Your task to perform on an android device: Open Youtube and go to the subscriptions tab Image 0: 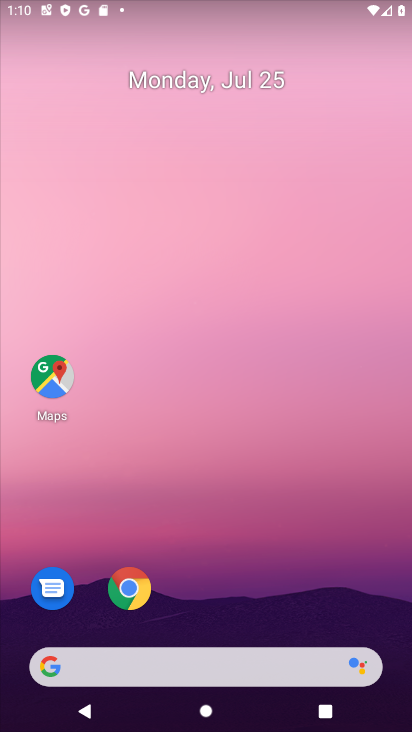
Step 0: drag from (172, 530) to (138, 47)
Your task to perform on an android device: Open Youtube and go to the subscriptions tab Image 1: 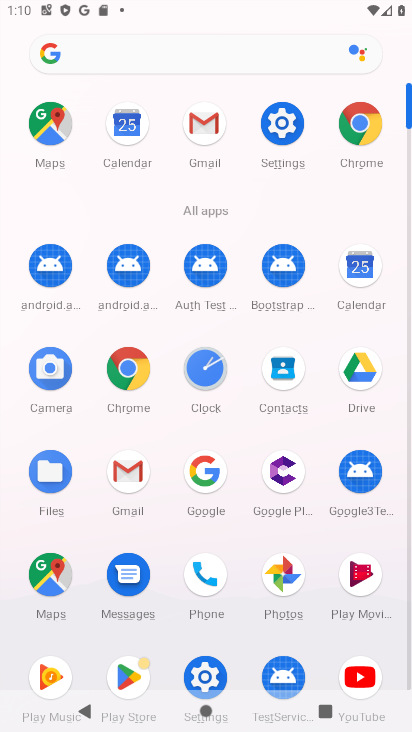
Step 1: click (356, 674)
Your task to perform on an android device: Open Youtube and go to the subscriptions tab Image 2: 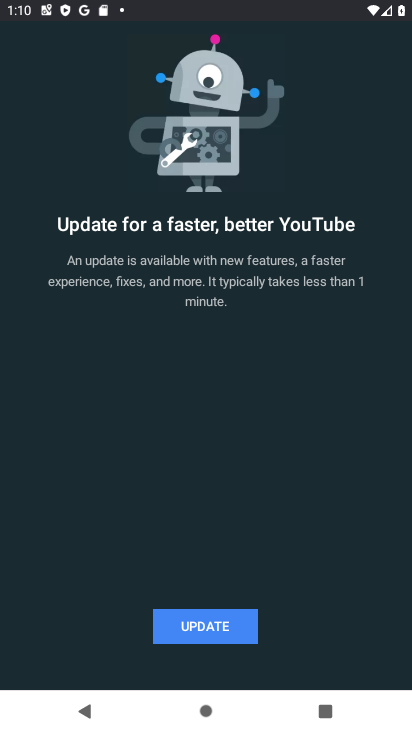
Step 2: click (183, 630)
Your task to perform on an android device: Open Youtube and go to the subscriptions tab Image 3: 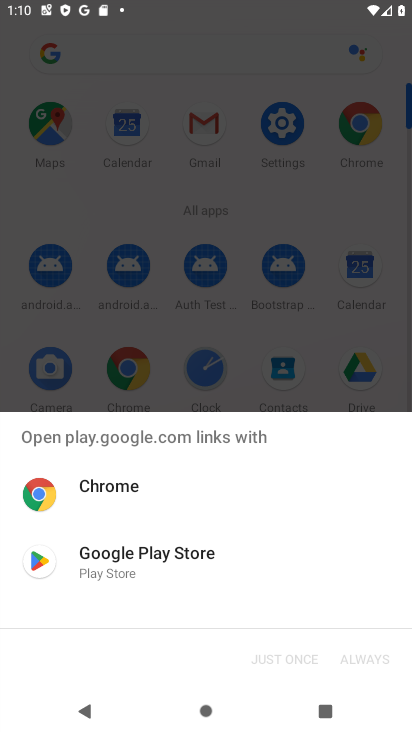
Step 3: click (117, 564)
Your task to perform on an android device: Open Youtube and go to the subscriptions tab Image 4: 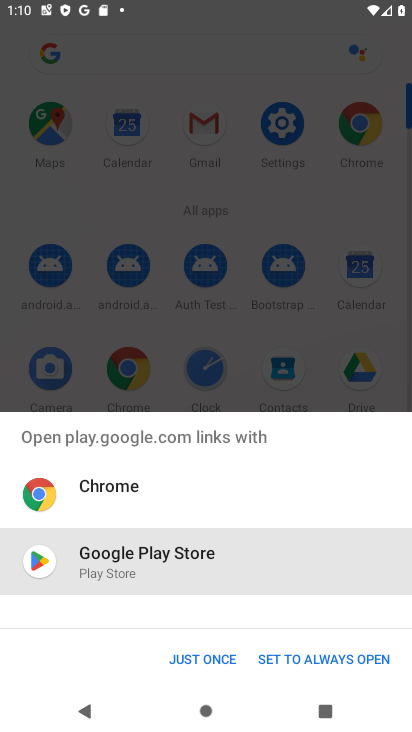
Step 4: click (299, 664)
Your task to perform on an android device: Open Youtube and go to the subscriptions tab Image 5: 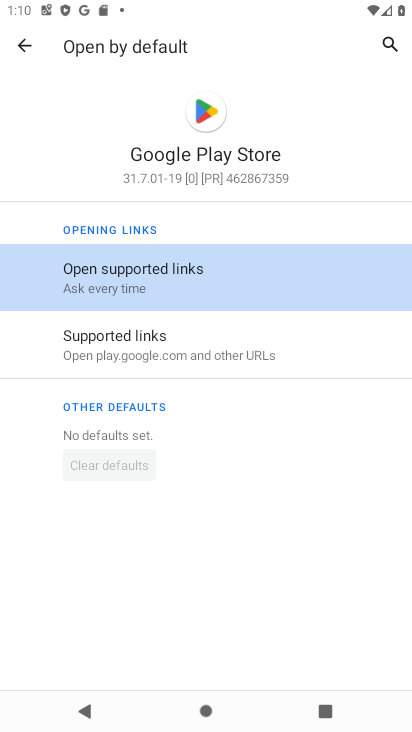
Step 5: click (13, 40)
Your task to perform on an android device: Open Youtube and go to the subscriptions tab Image 6: 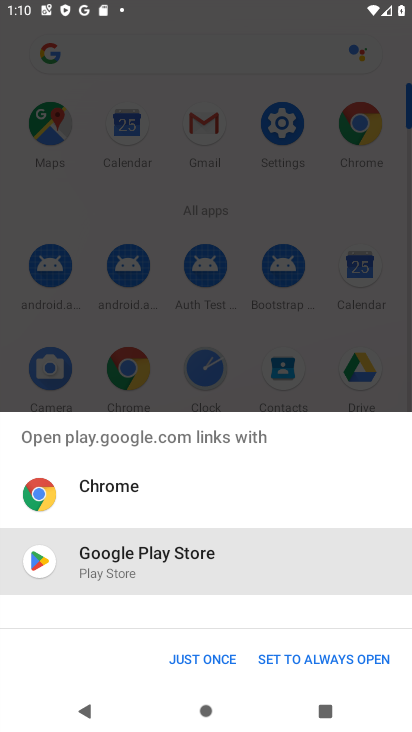
Step 6: click (351, 666)
Your task to perform on an android device: Open Youtube and go to the subscriptions tab Image 7: 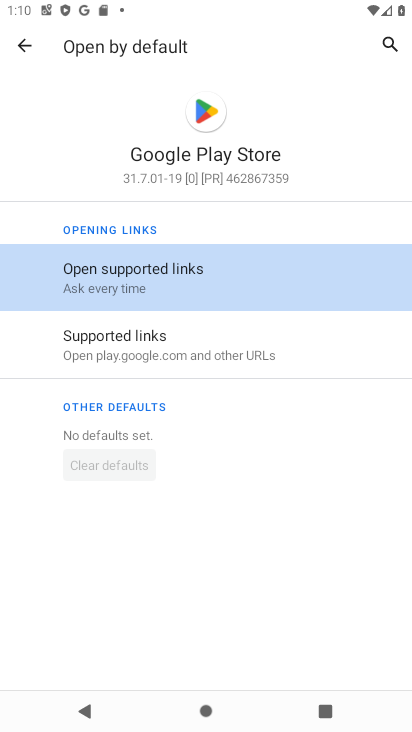
Step 7: click (140, 267)
Your task to perform on an android device: Open Youtube and go to the subscriptions tab Image 8: 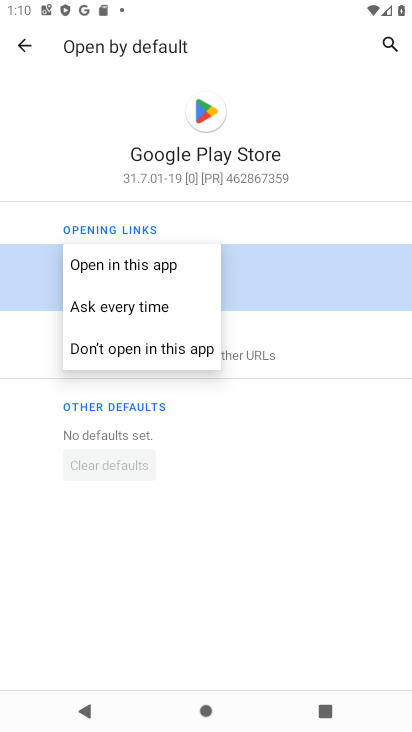
Step 8: click (114, 267)
Your task to perform on an android device: Open Youtube and go to the subscriptions tab Image 9: 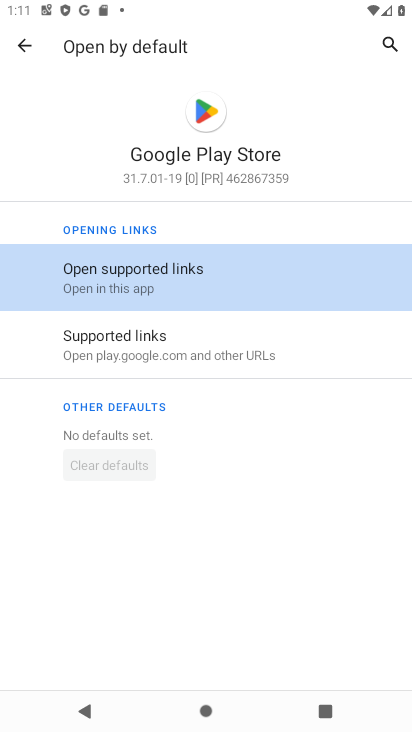
Step 9: click (26, 48)
Your task to perform on an android device: Open Youtube and go to the subscriptions tab Image 10: 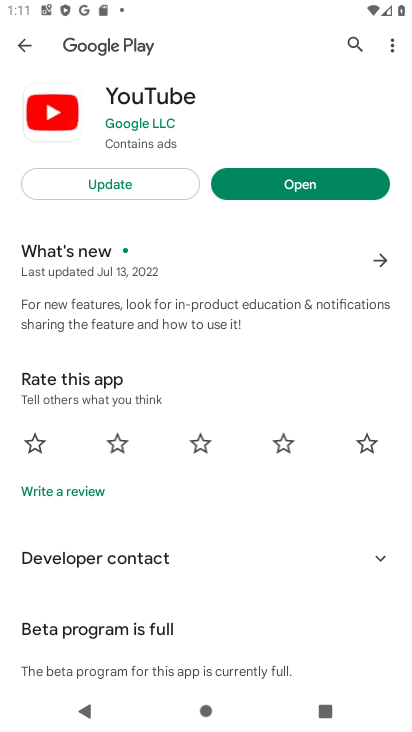
Step 10: click (93, 184)
Your task to perform on an android device: Open Youtube and go to the subscriptions tab Image 11: 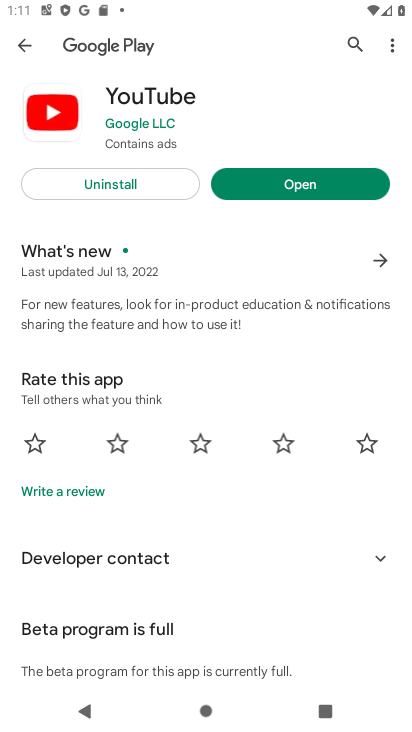
Step 11: click (246, 188)
Your task to perform on an android device: Open Youtube and go to the subscriptions tab Image 12: 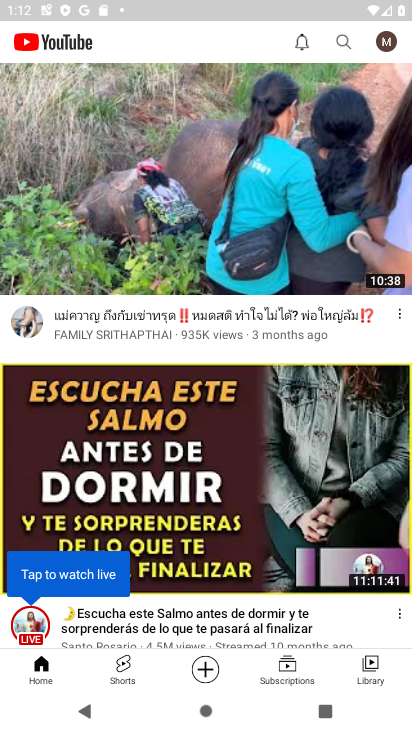
Step 12: task complete